Your task to perform on an android device: What's the weather going to be tomorrow? Image 0: 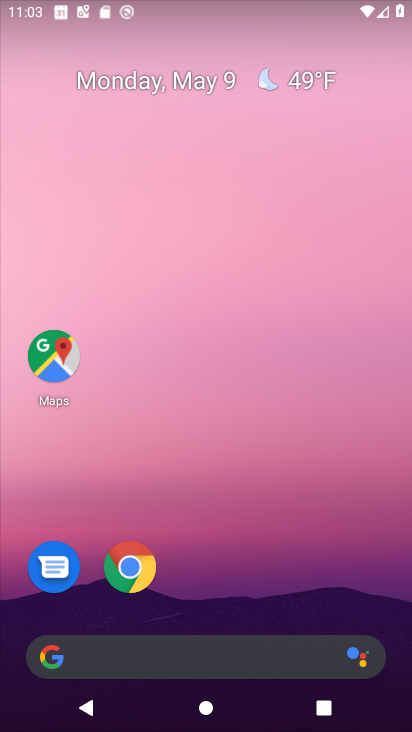
Step 0: drag from (214, 651) to (256, 182)
Your task to perform on an android device: What's the weather going to be tomorrow? Image 1: 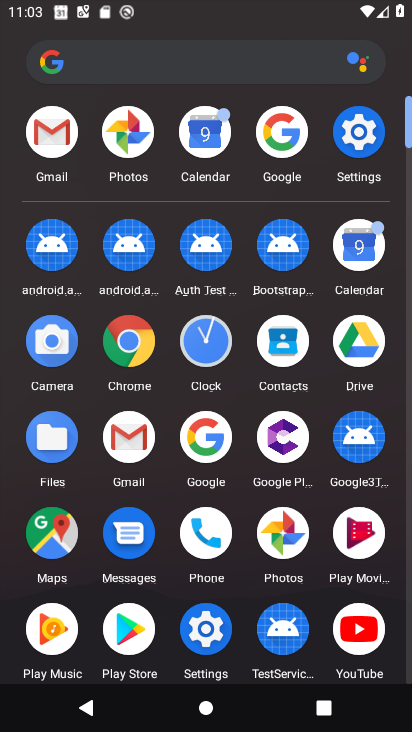
Step 1: click (206, 442)
Your task to perform on an android device: What's the weather going to be tomorrow? Image 2: 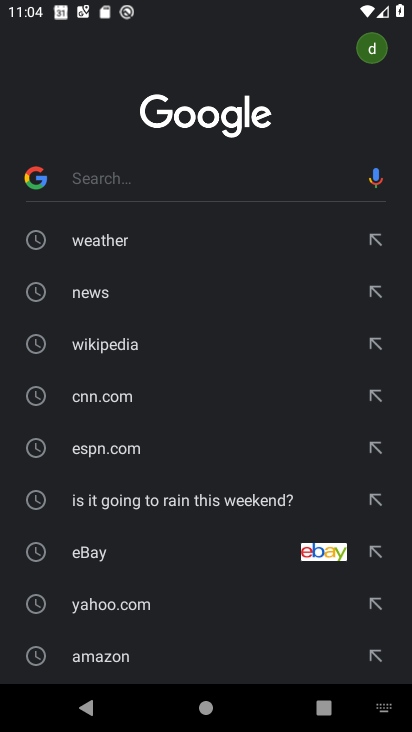
Step 2: click (132, 237)
Your task to perform on an android device: What's the weather going to be tomorrow? Image 3: 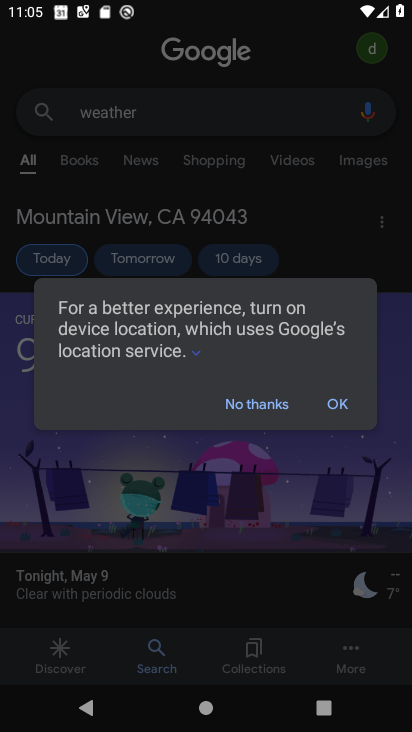
Step 3: click (333, 409)
Your task to perform on an android device: What's the weather going to be tomorrow? Image 4: 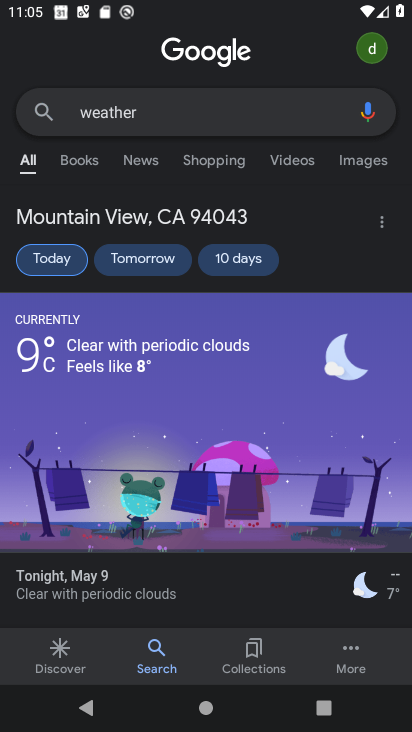
Step 4: task complete